Your task to perform on an android device: open chrome privacy settings Image 0: 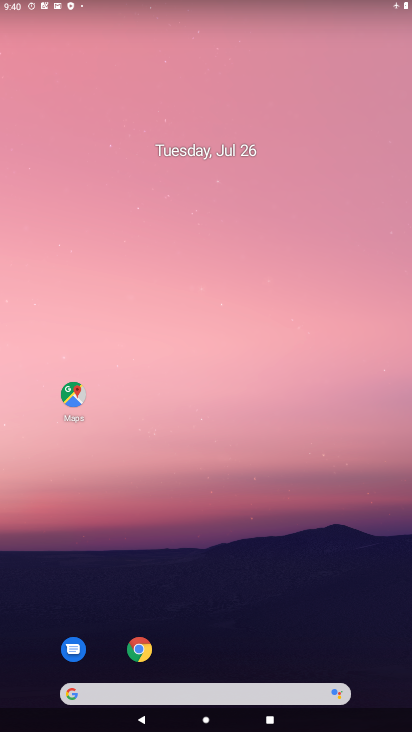
Step 0: drag from (181, 671) to (345, 42)
Your task to perform on an android device: open chrome privacy settings Image 1: 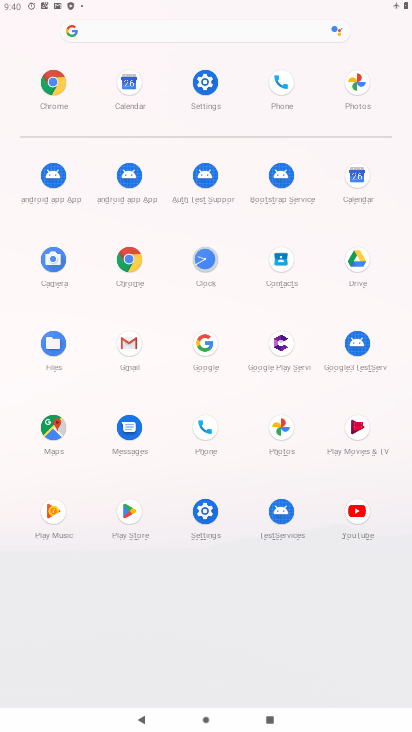
Step 1: click (205, 507)
Your task to perform on an android device: open chrome privacy settings Image 2: 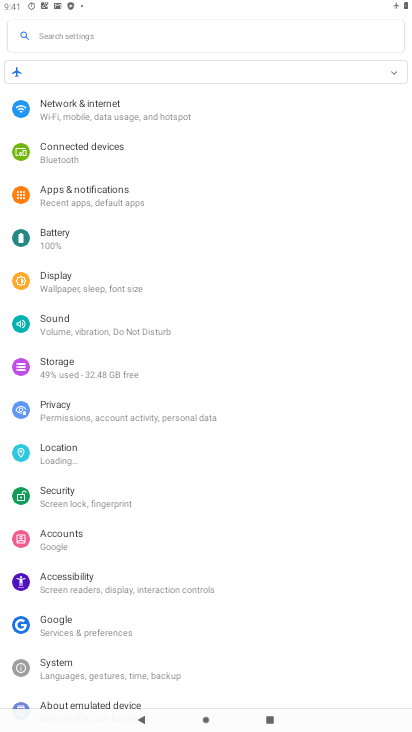
Step 2: click (55, 417)
Your task to perform on an android device: open chrome privacy settings Image 3: 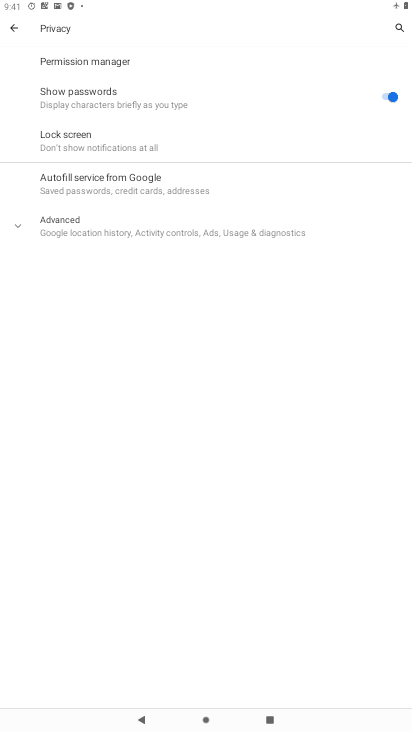
Step 3: press home button
Your task to perform on an android device: open chrome privacy settings Image 4: 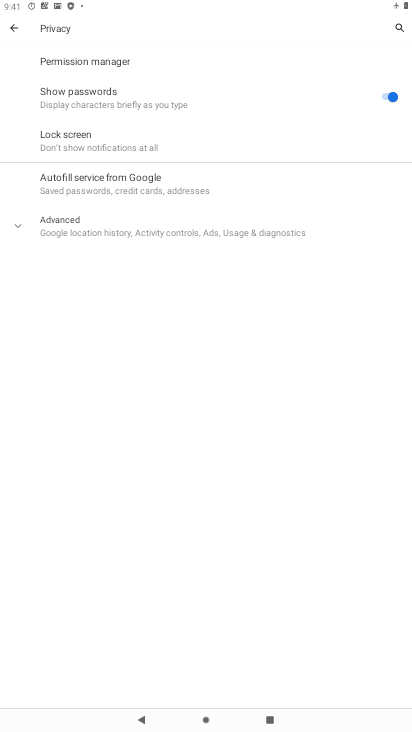
Step 4: drag from (185, 617) to (255, 137)
Your task to perform on an android device: open chrome privacy settings Image 5: 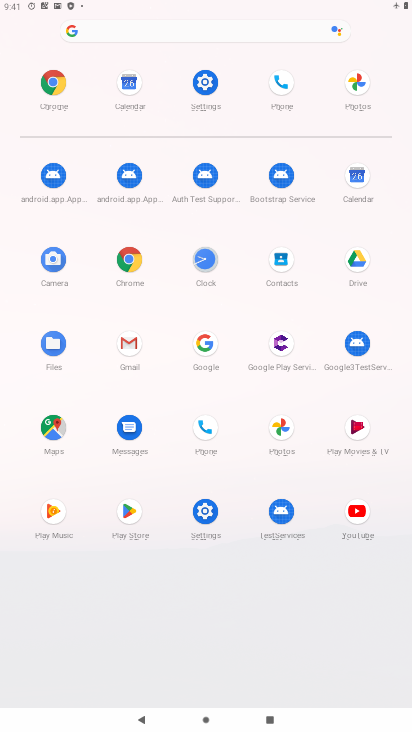
Step 5: click (126, 258)
Your task to perform on an android device: open chrome privacy settings Image 6: 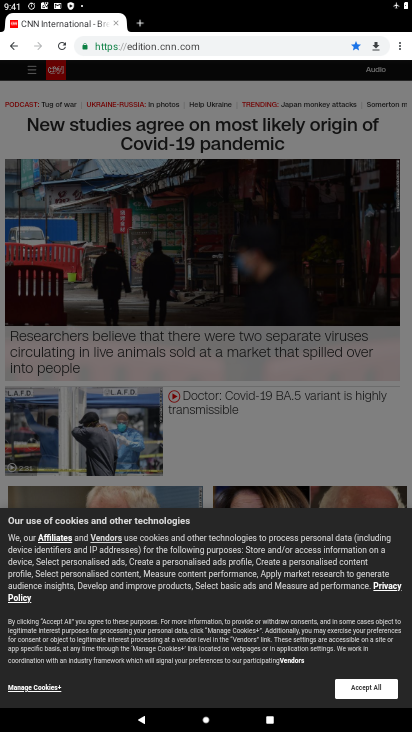
Step 6: drag from (398, 49) to (322, 281)
Your task to perform on an android device: open chrome privacy settings Image 7: 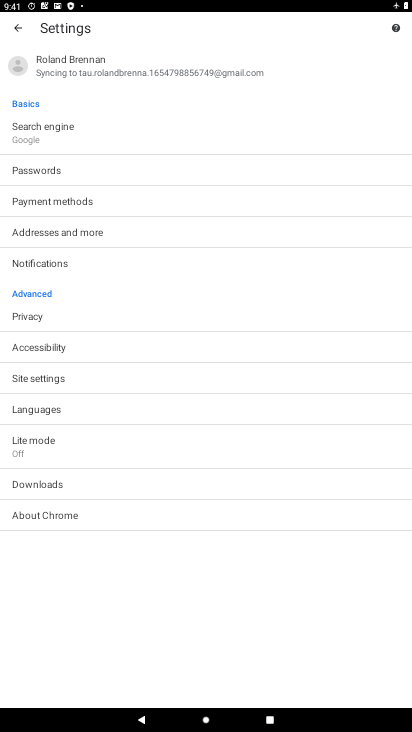
Step 7: click (58, 318)
Your task to perform on an android device: open chrome privacy settings Image 8: 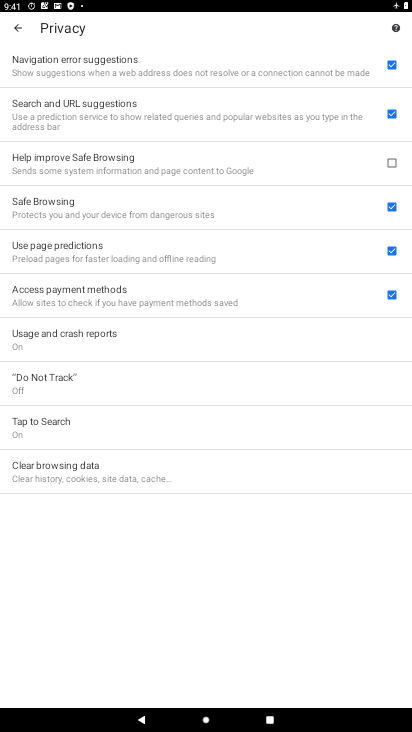
Step 8: task complete